Your task to perform on an android device: Empty the shopping cart on target.com. Image 0: 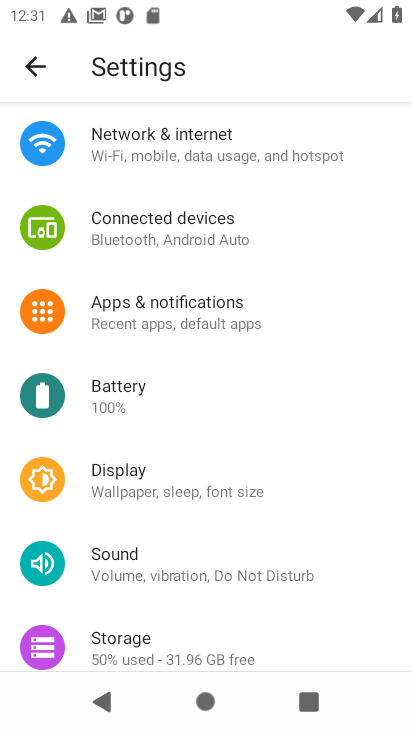
Step 0: press home button
Your task to perform on an android device: Empty the shopping cart on target.com. Image 1: 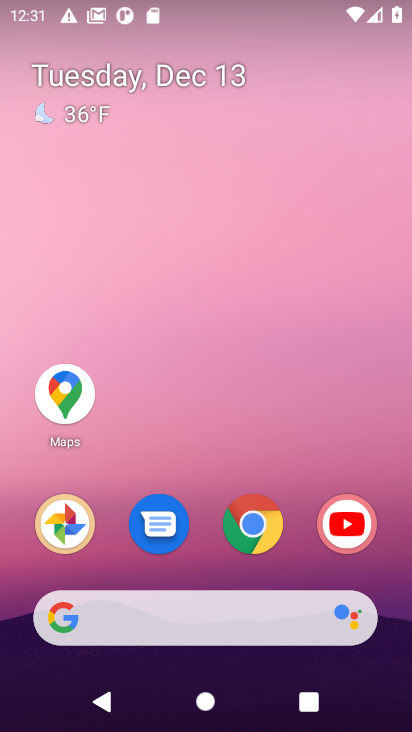
Step 1: click (255, 528)
Your task to perform on an android device: Empty the shopping cart on target.com. Image 2: 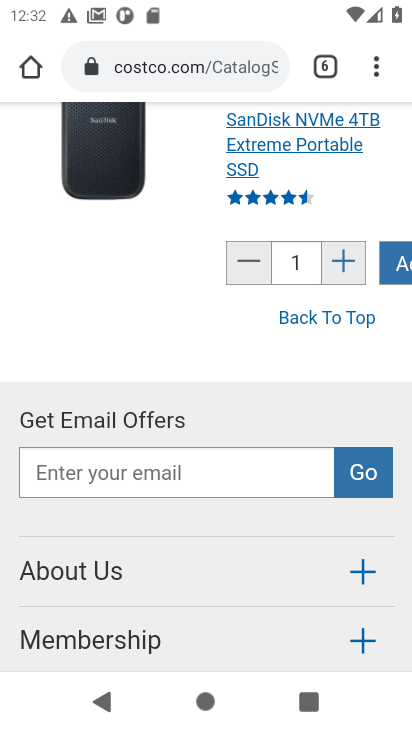
Step 2: click (193, 63)
Your task to perform on an android device: Empty the shopping cart on target.com. Image 3: 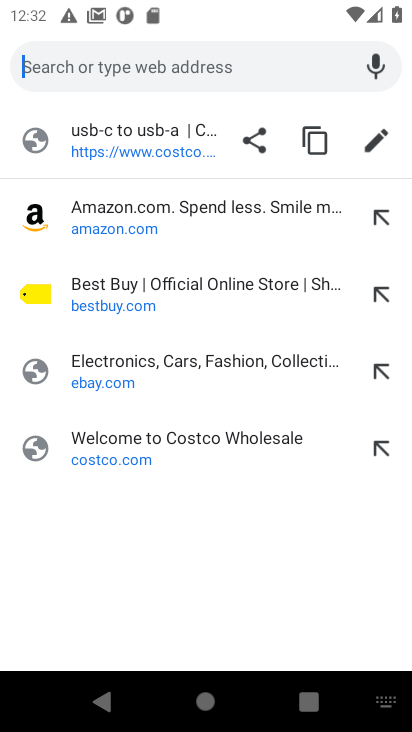
Step 3: click (116, 65)
Your task to perform on an android device: Empty the shopping cart on target.com. Image 4: 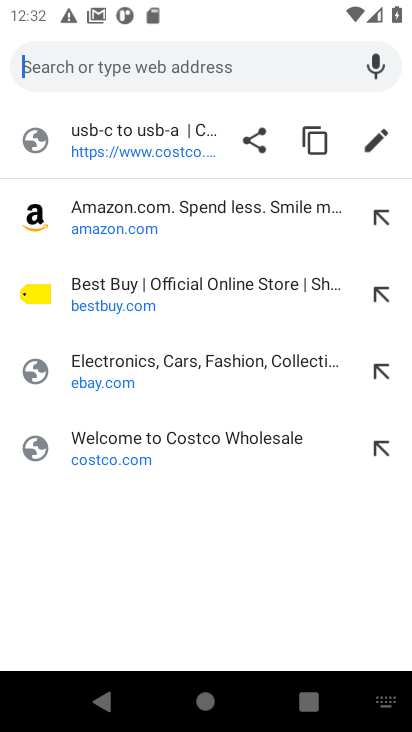
Step 4: type "target.com"
Your task to perform on an android device: Empty the shopping cart on target.com. Image 5: 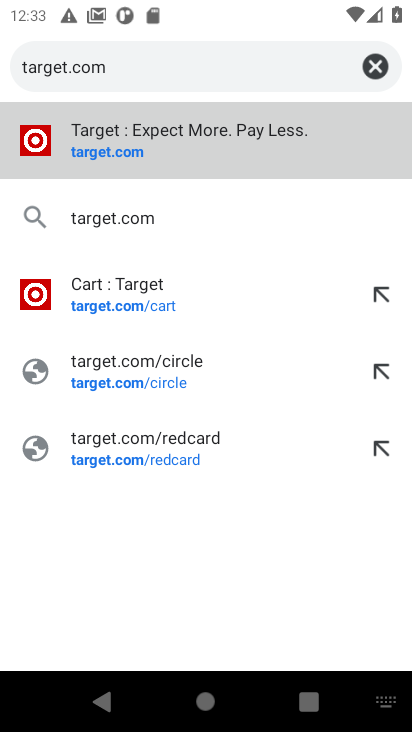
Step 5: click (113, 154)
Your task to perform on an android device: Empty the shopping cart on target.com. Image 6: 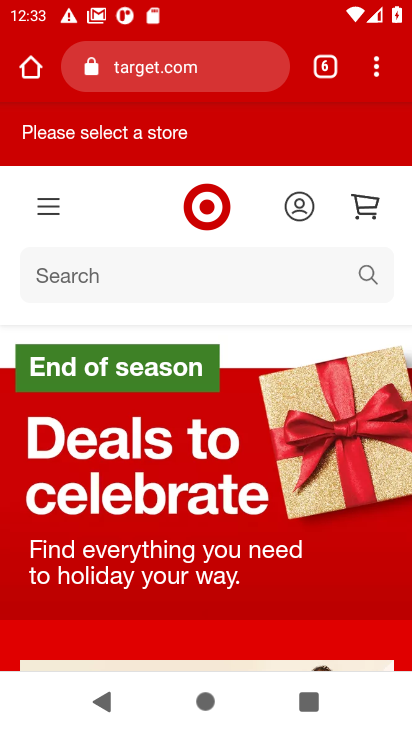
Step 6: click (364, 205)
Your task to perform on an android device: Empty the shopping cart on target.com. Image 7: 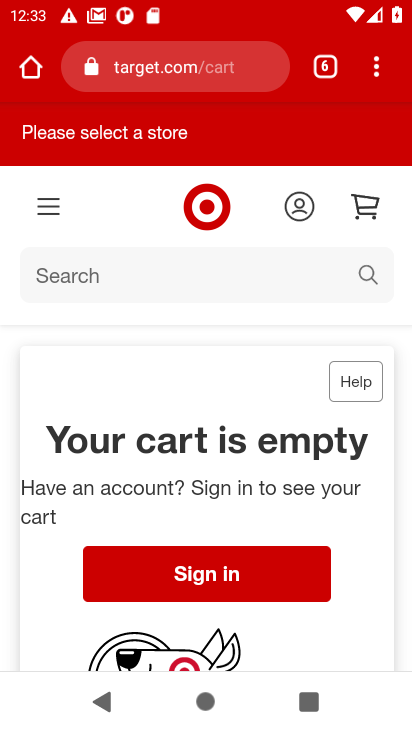
Step 7: task complete